Your task to perform on an android device: Show me productivity apps on the Play Store Image 0: 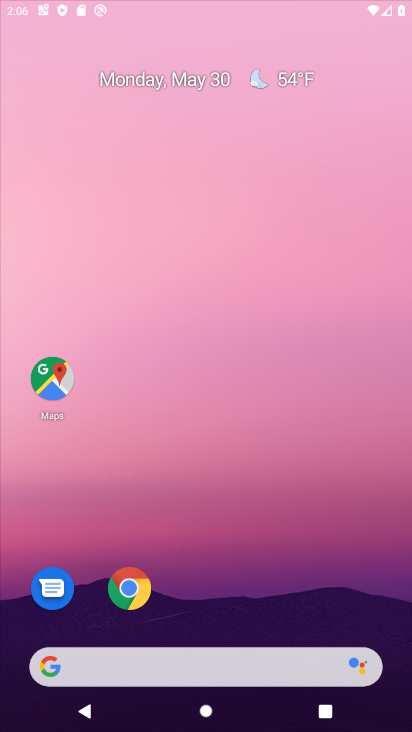
Step 0: click (233, 137)
Your task to perform on an android device: Show me productivity apps on the Play Store Image 1: 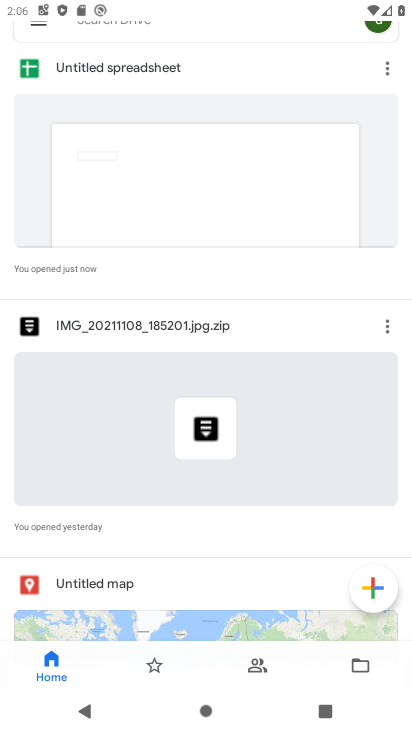
Step 1: press home button
Your task to perform on an android device: Show me productivity apps on the Play Store Image 2: 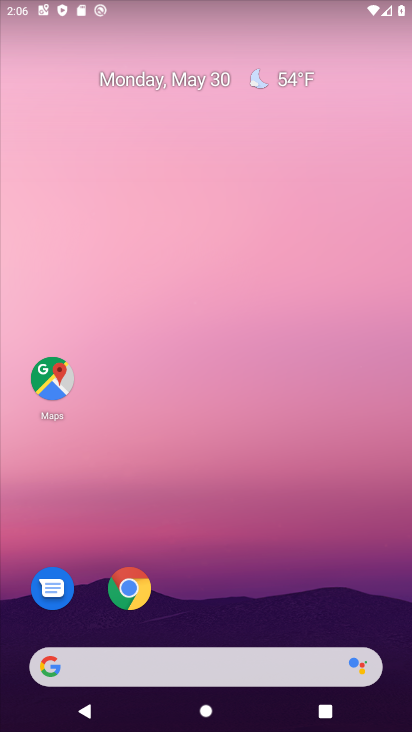
Step 2: drag from (214, 612) to (184, 183)
Your task to perform on an android device: Show me productivity apps on the Play Store Image 3: 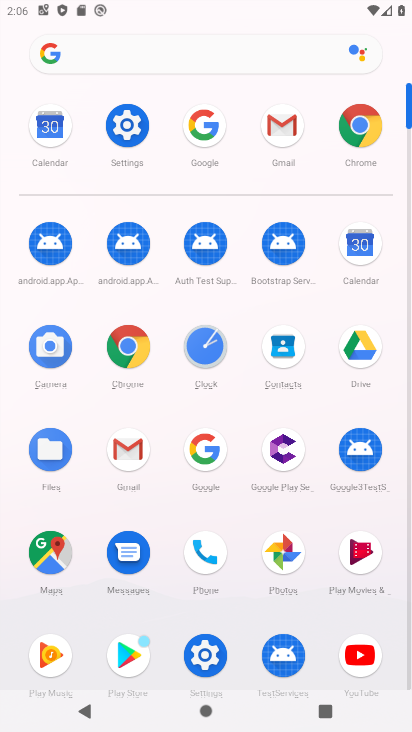
Step 3: click (137, 648)
Your task to perform on an android device: Show me productivity apps on the Play Store Image 4: 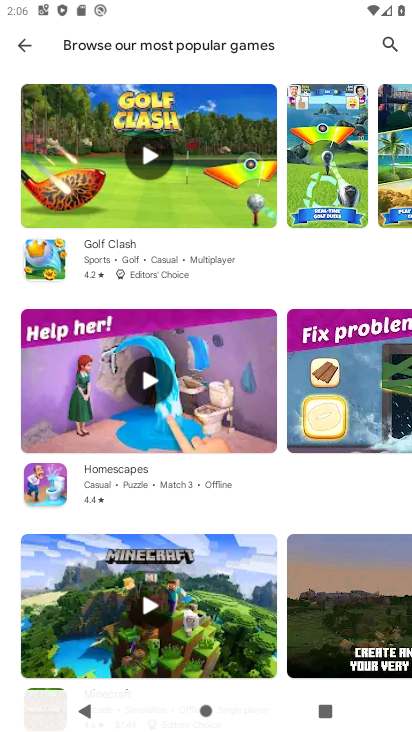
Step 4: drag from (206, 141) to (320, 664)
Your task to perform on an android device: Show me productivity apps on the Play Store Image 5: 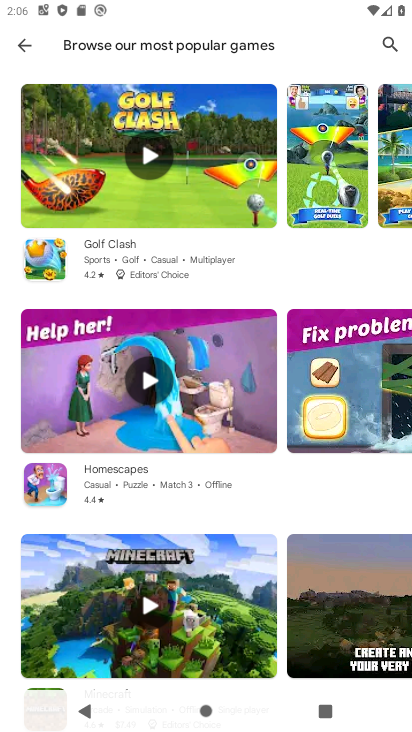
Step 5: press back button
Your task to perform on an android device: Show me productivity apps on the Play Store Image 6: 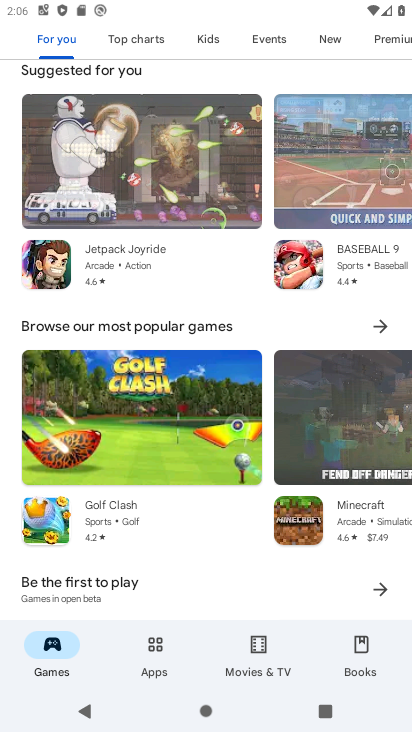
Step 6: click (165, 641)
Your task to perform on an android device: Show me productivity apps on the Play Store Image 7: 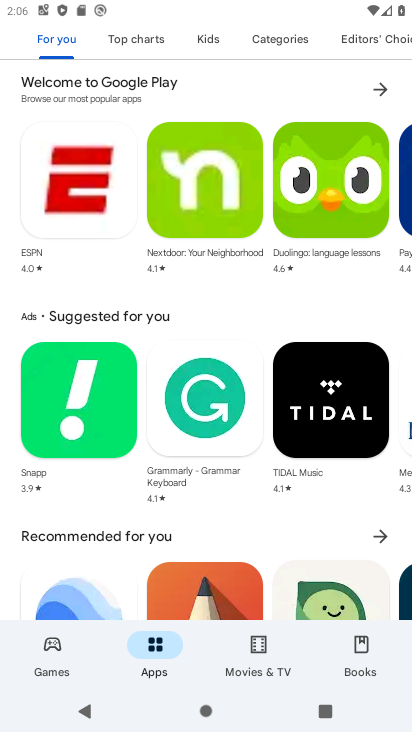
Step 7: click (330, 44)
Your task to perform on an android device: Show me productivity apps on the Play Store Image 8: 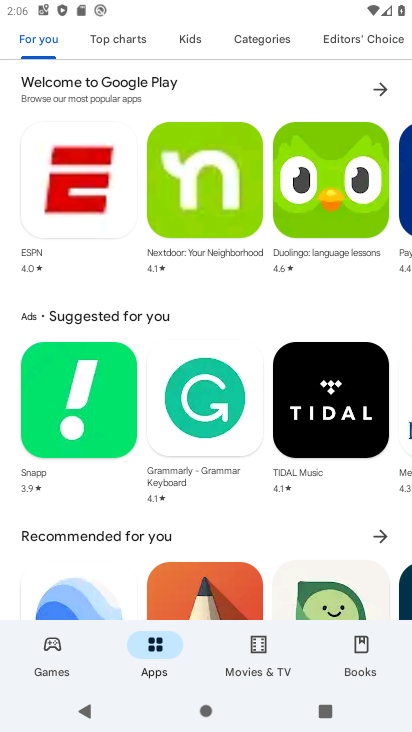
Step 8: click (243, 43)
Your task to perform on an android device: Show me productivity apps on the Play Store Image 9: 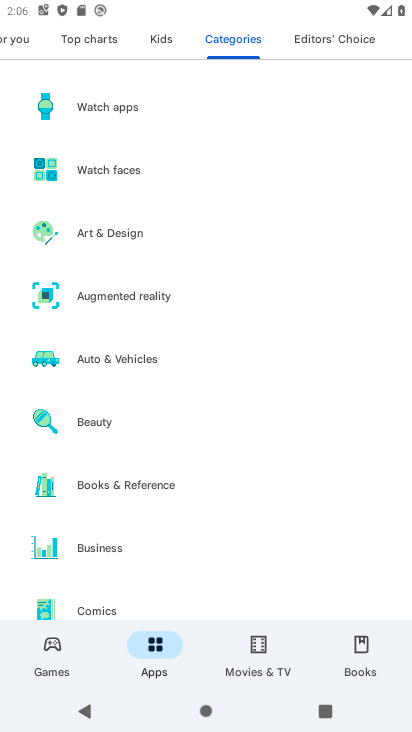
Step 9: drag from (182, 586) to (191, 0)
Your task to perform on an android device: Show me productivity apps on the Play Store Image 10: 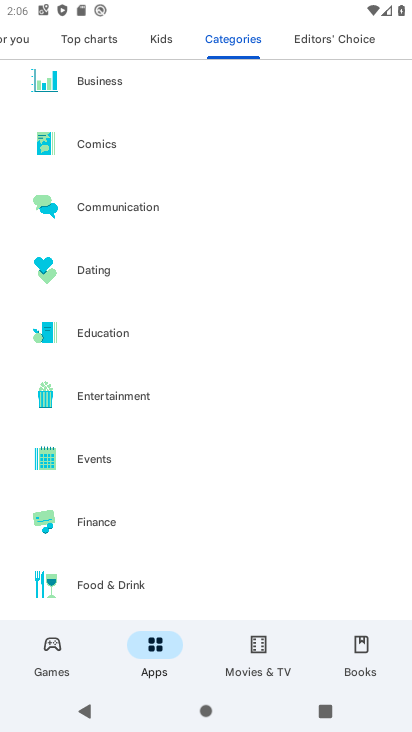
Step 10: drag from (227, 565) to (234, 7)
Your task to perform on an android device: Show me productivity apps on the Play Store Image 11: 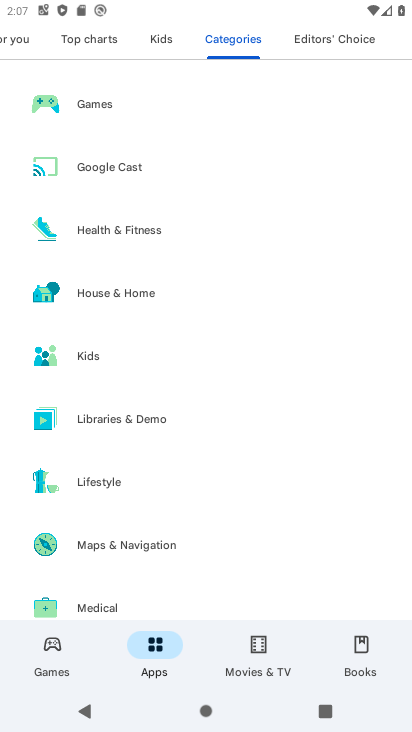
Step 11: drag from (167, 586) to (177, 133)
Your task to perform on an android device: Show me productivity apps on the Play Store Image 12: 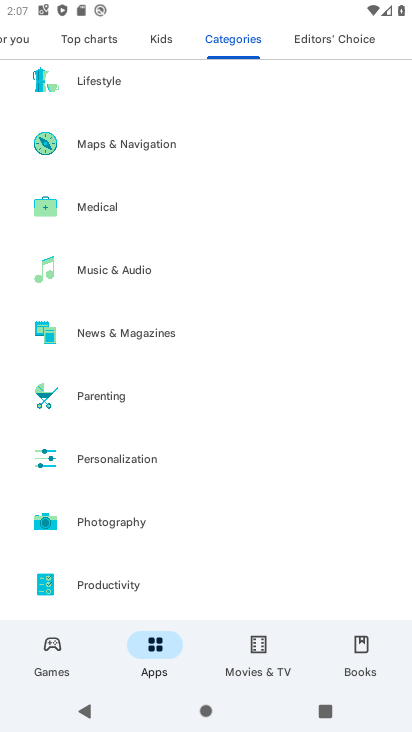
Step 12: click (111, 593)
Your task to perform on an android device: Show me productivity apps on the Play Store Image 13: 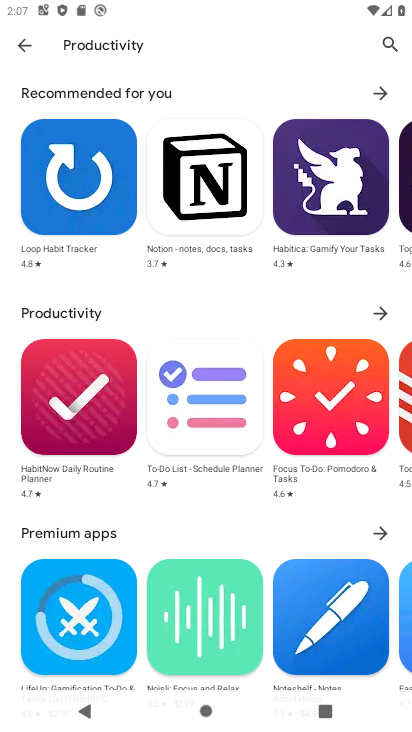
Step 13: task complete